Your task to perform on an android device: Go to Wikipedia Image 0: 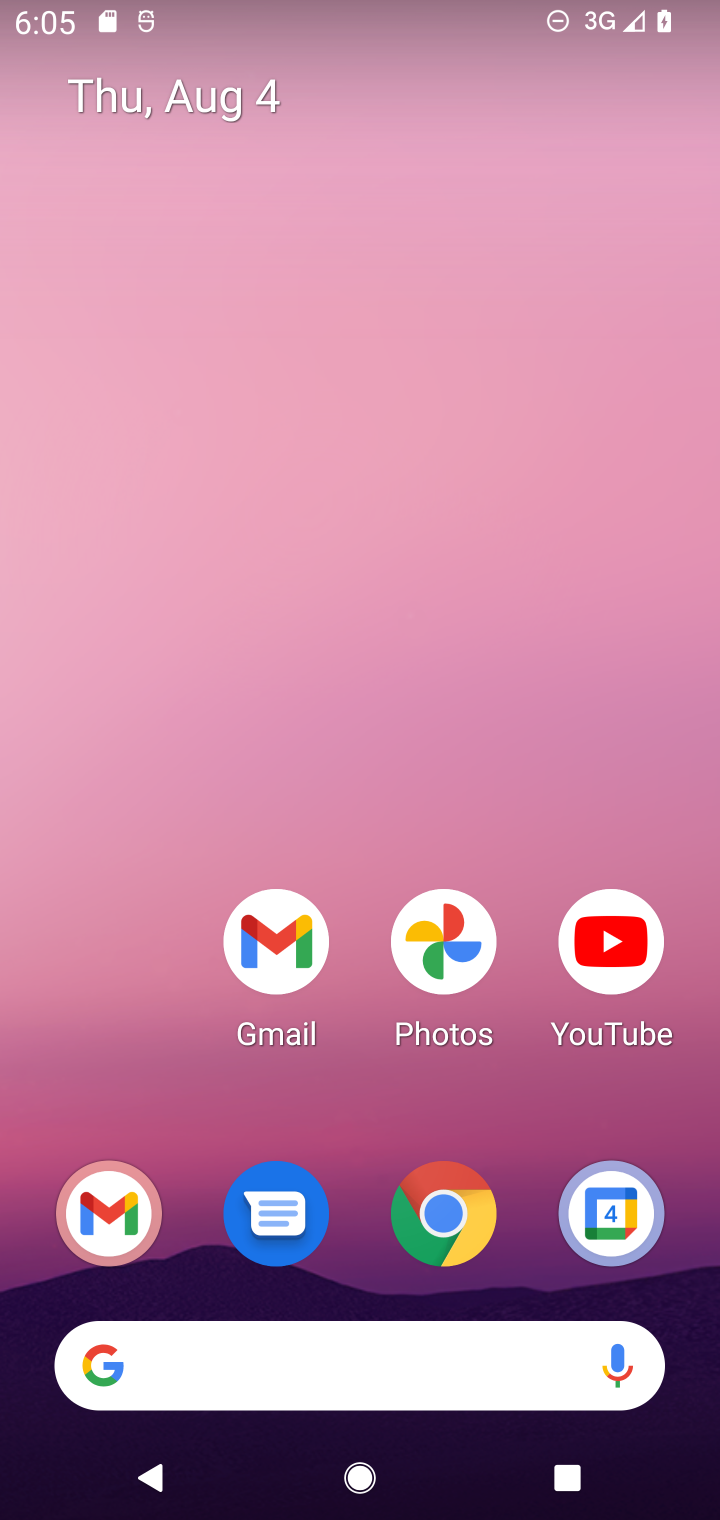
Step 0: drag from (161, 1076) to (199, 297)
Your task to perform on an android device: Go to Wikipedia Image 1: 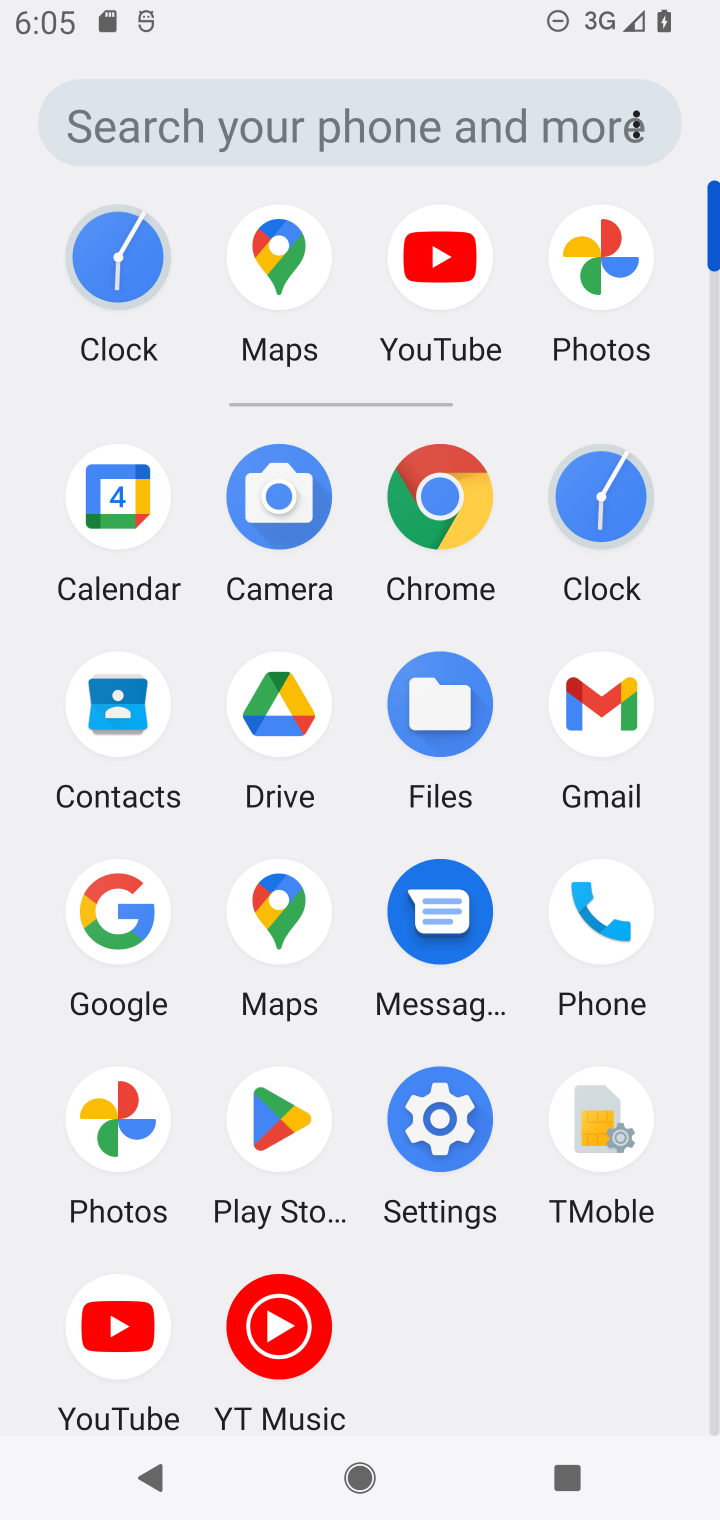
Step 1: click (441, 513)
Your task to perform on an android device: Go to Wikipedia Image 2: 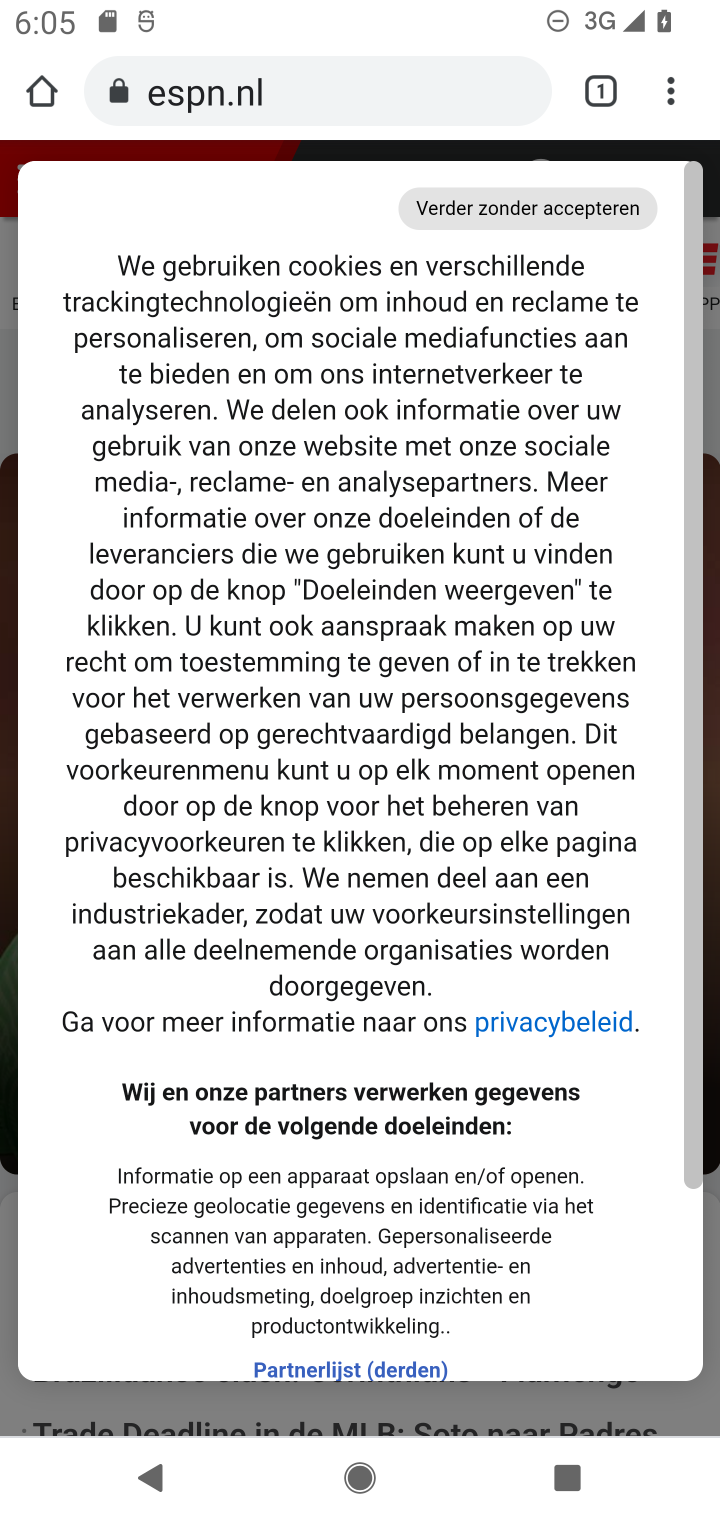
Step 2: click (355, 88)
Your task to perform on an android device: Go to Wikipedia Image 3: 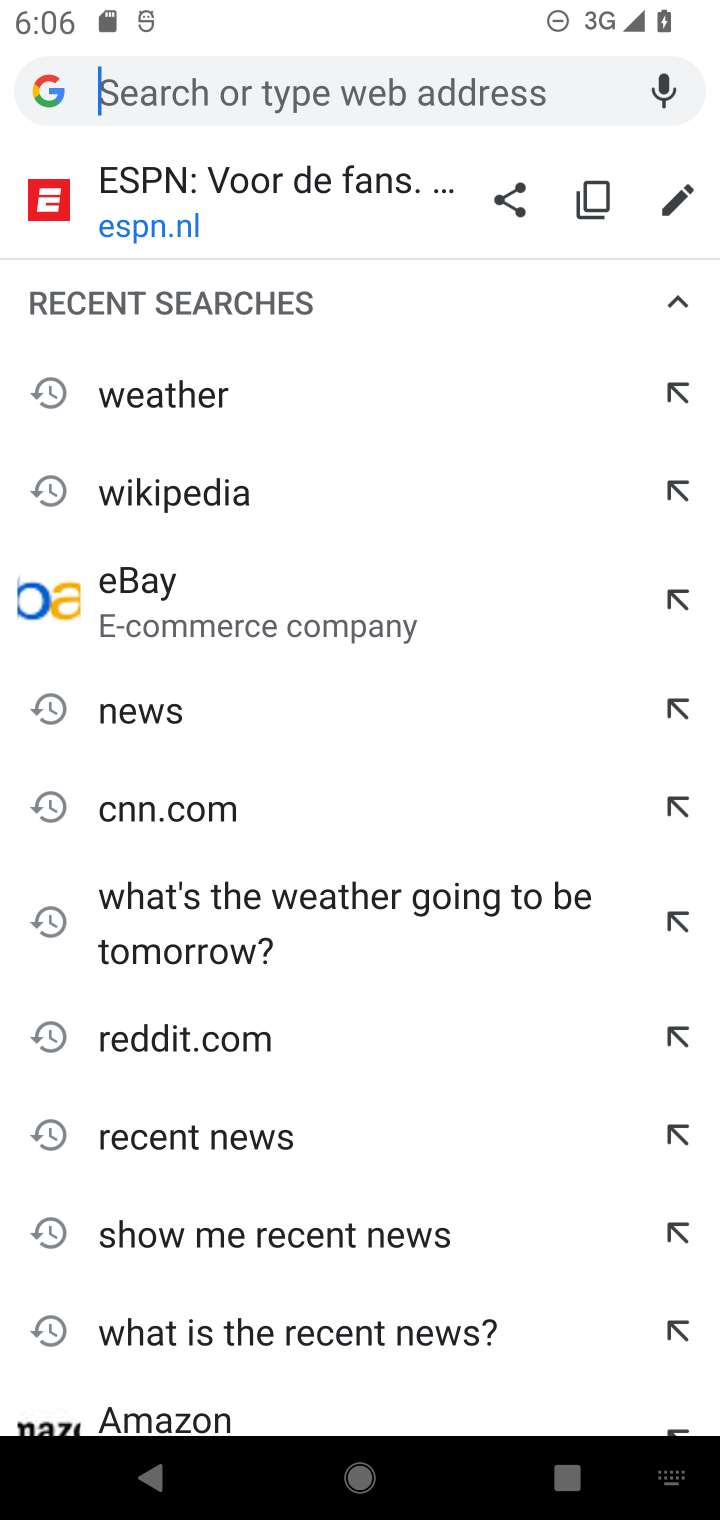
Step 3: type "wikipedia"
Your task to perform on an android device: Go to Wikipedia Image 4: 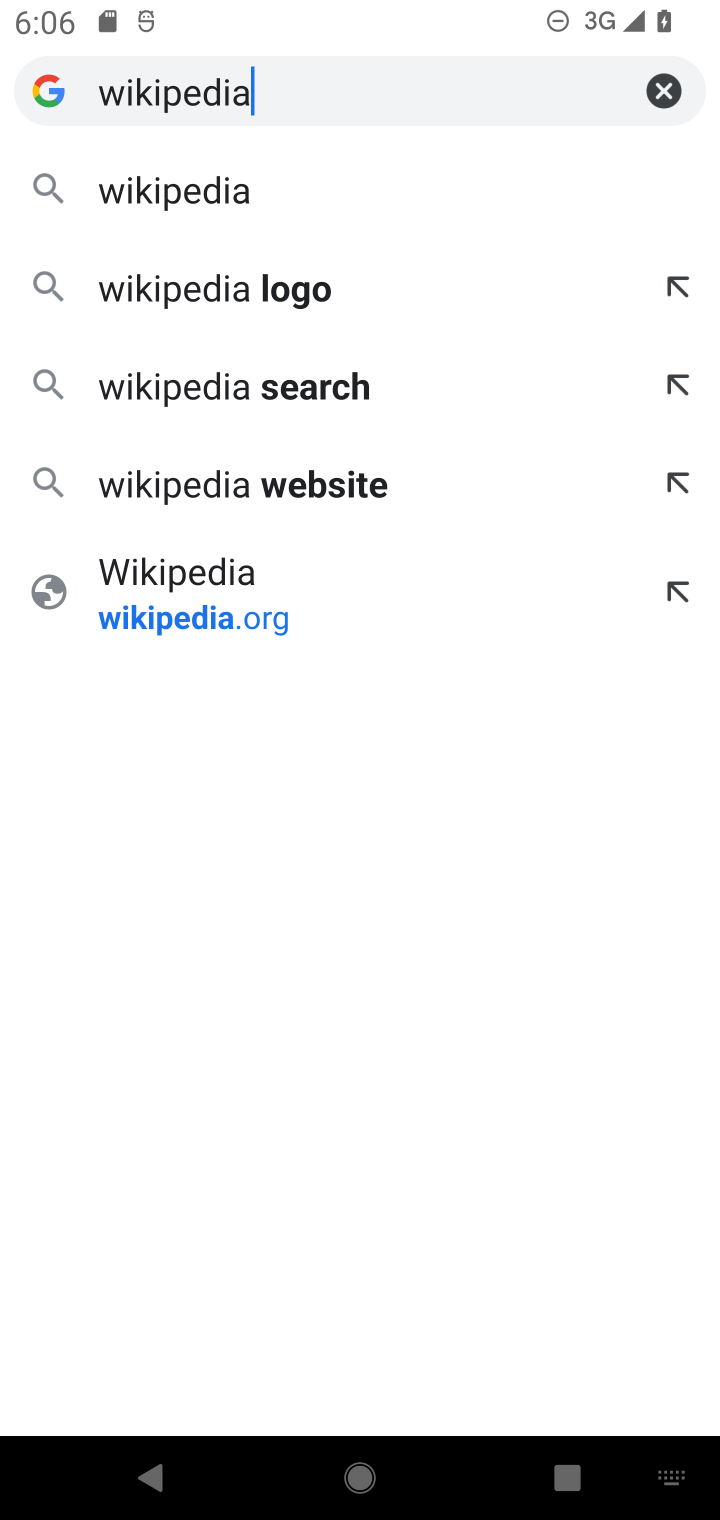
Step 4: click (368, 197)
Your task to perform on an android device: Go to Wikipedia Image 5: 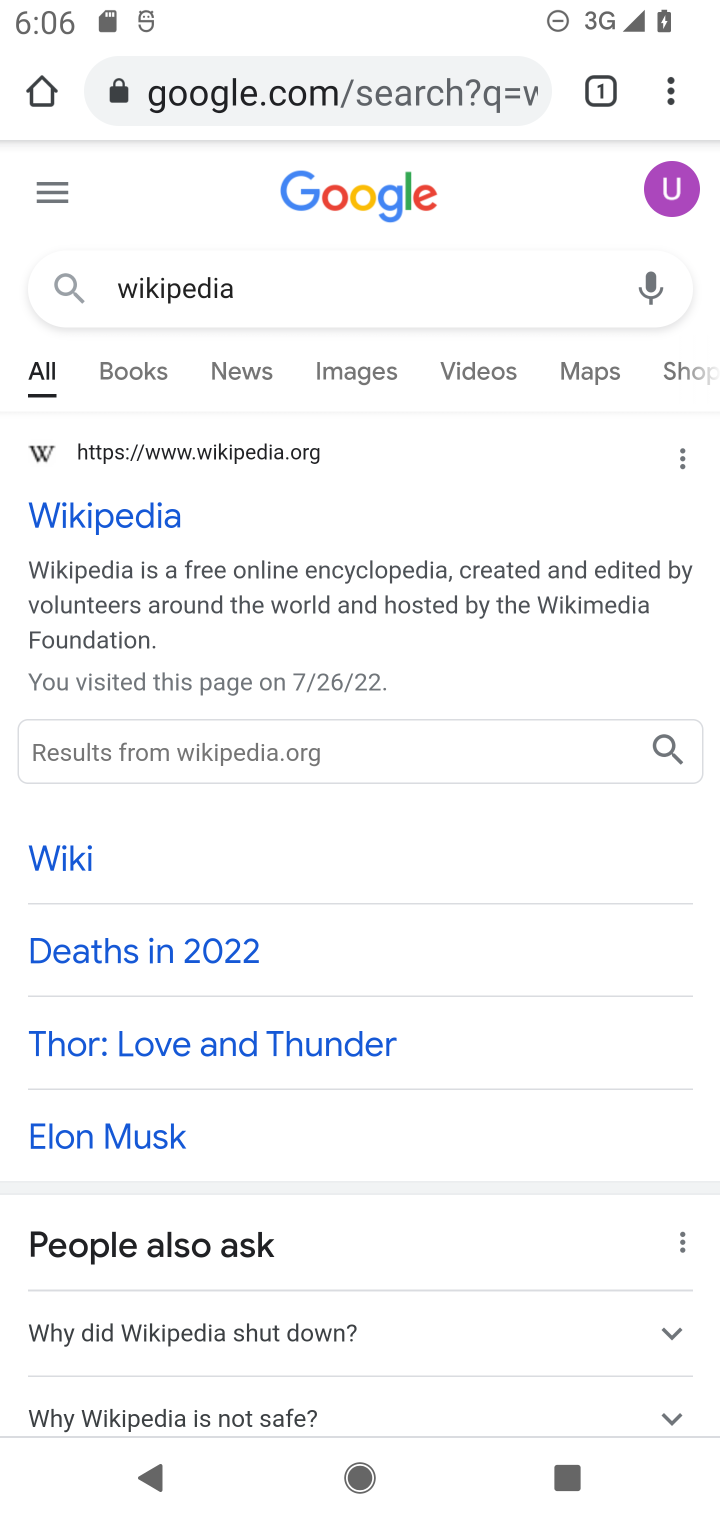
Step 5: task complete